Your task to perform on an android device: Add usb-a to usb-b to the cart on walmart.com Image 0: 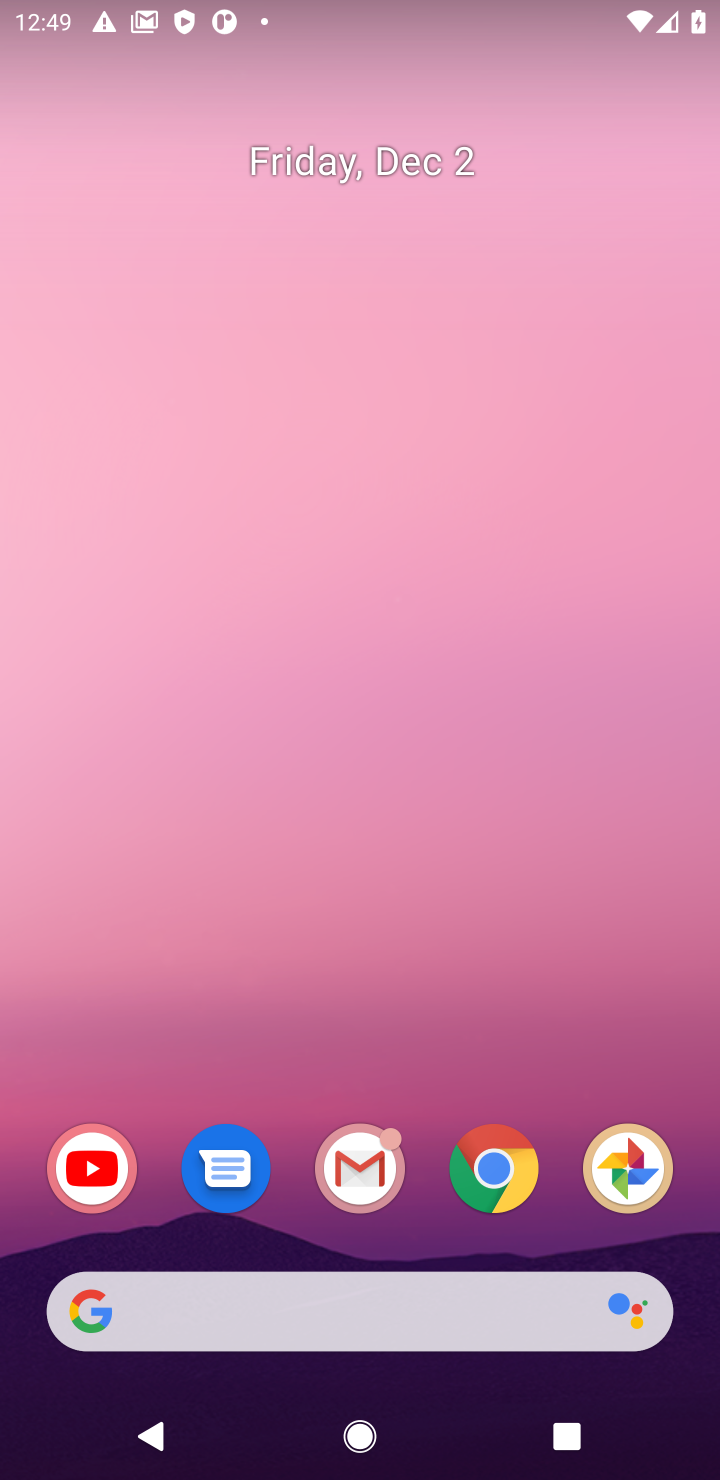
Step 0: click (518, 1172)
Your task to perform on an android device: Add usb-a to usb-b to the cart on walmart.com Image 1: 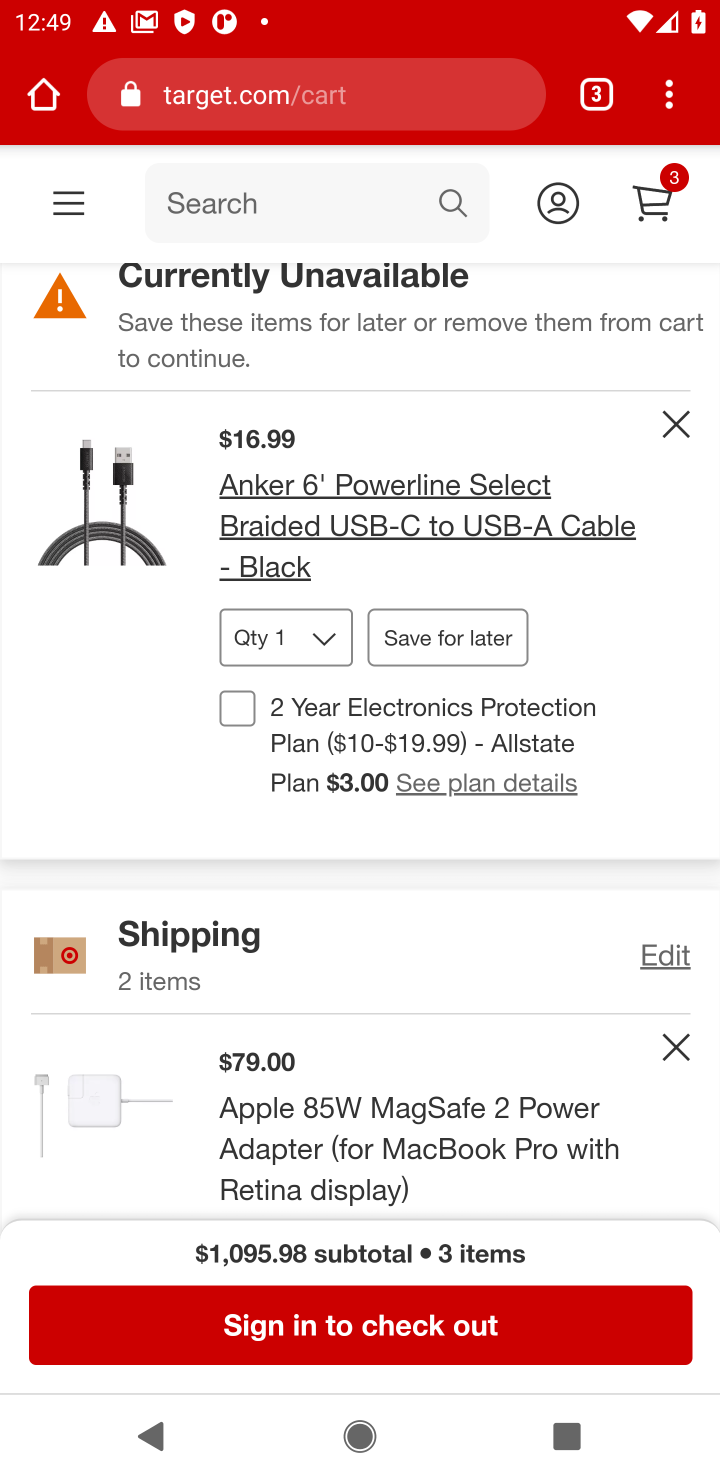
Step 1: click (219, 92)
Your task to perform on an android device: Add usb-a to usb-b to the cart on walmart.com Image 2: 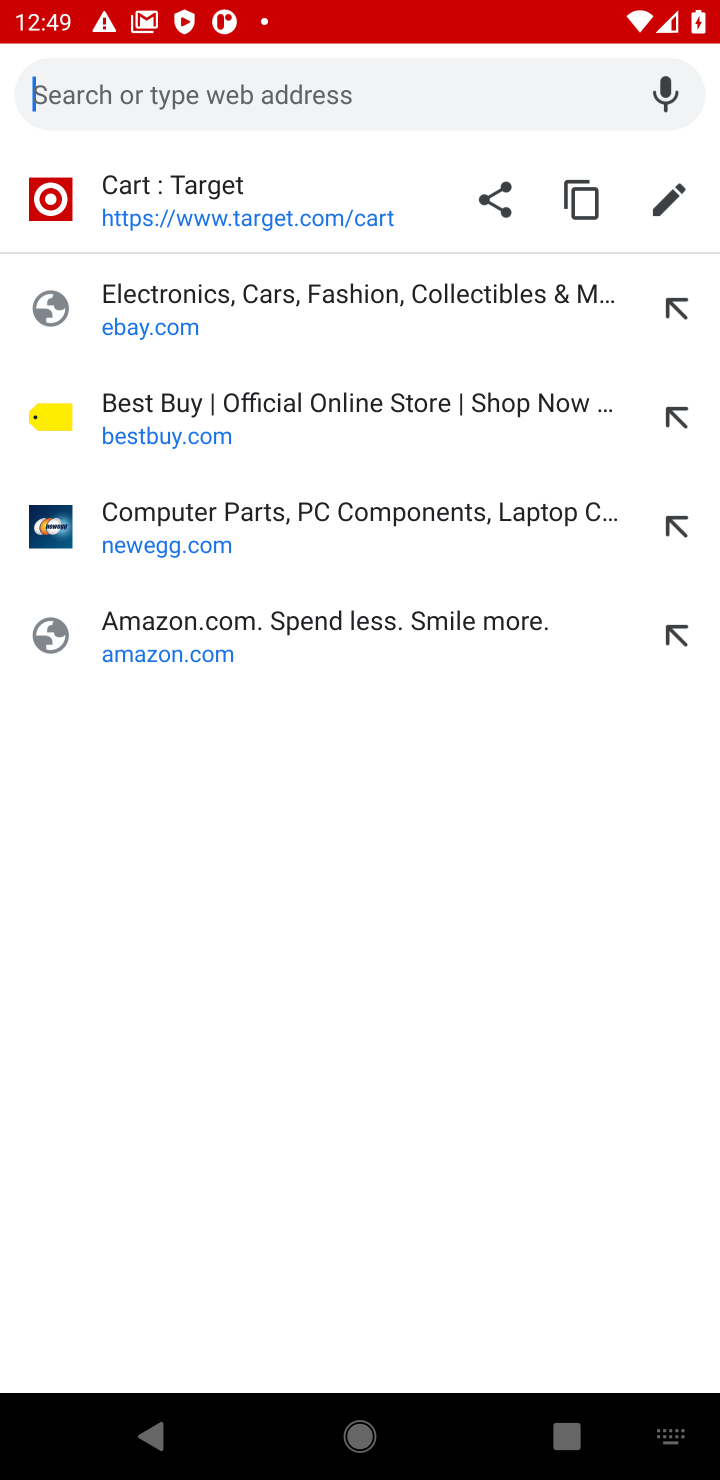
Step 2: type "walmart.com"
Your task to perform on an android device: Add usb-a to usb-b to the cart on walmart.com Image 3: 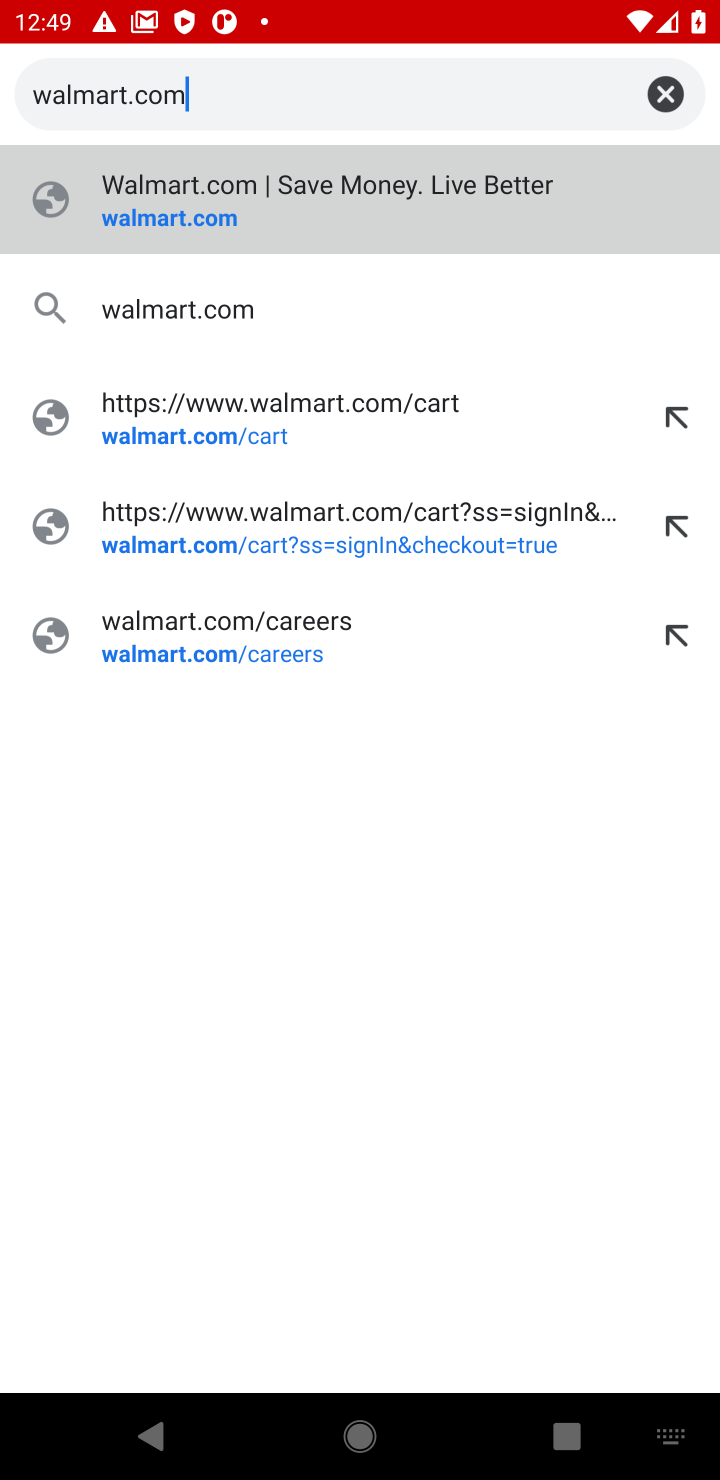
Step 3: click (164, 207)
Your task to perform on an android device: Add usb-a to usb-b to the cart on walmart.com Image 4: 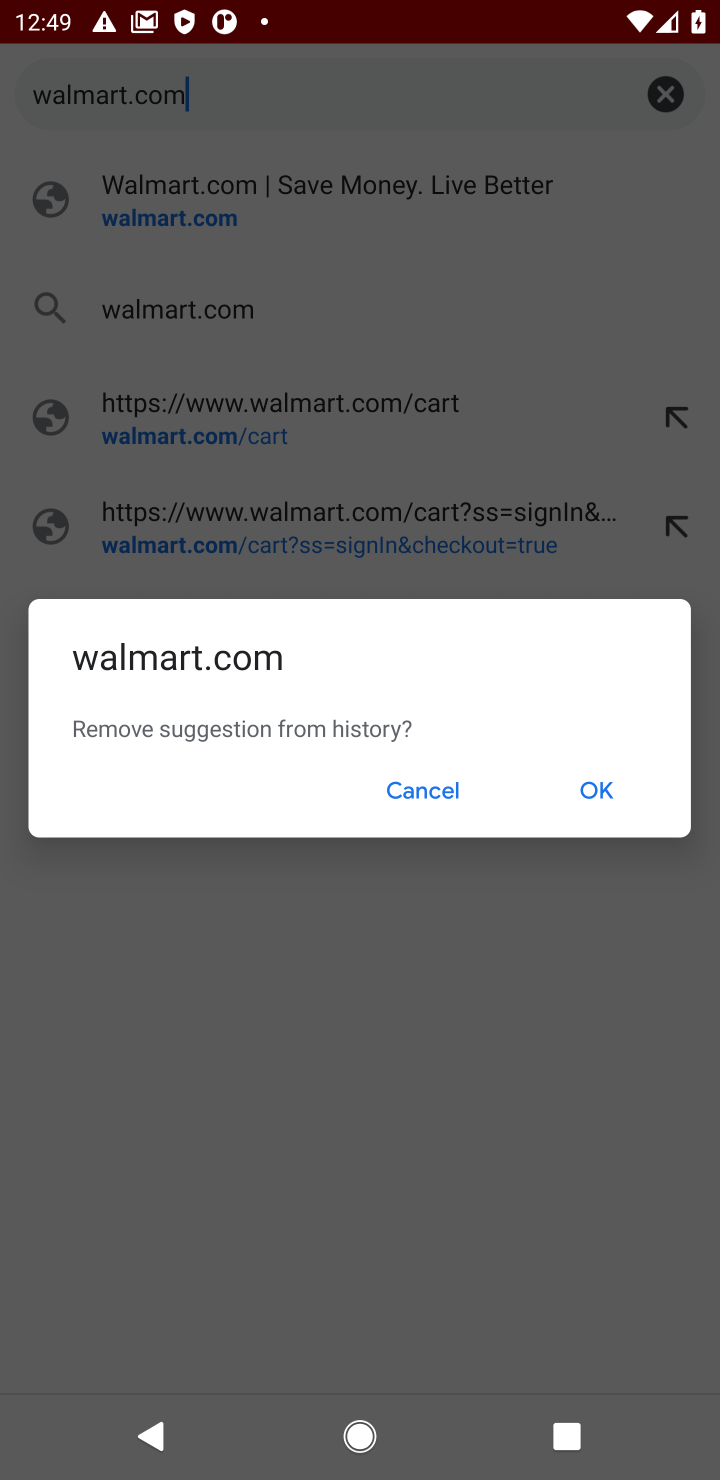
Step 4: click (407, 792)
Your task to perform on an android device: Add usb-a to usb-b to the cart on walmart.com Image 5: 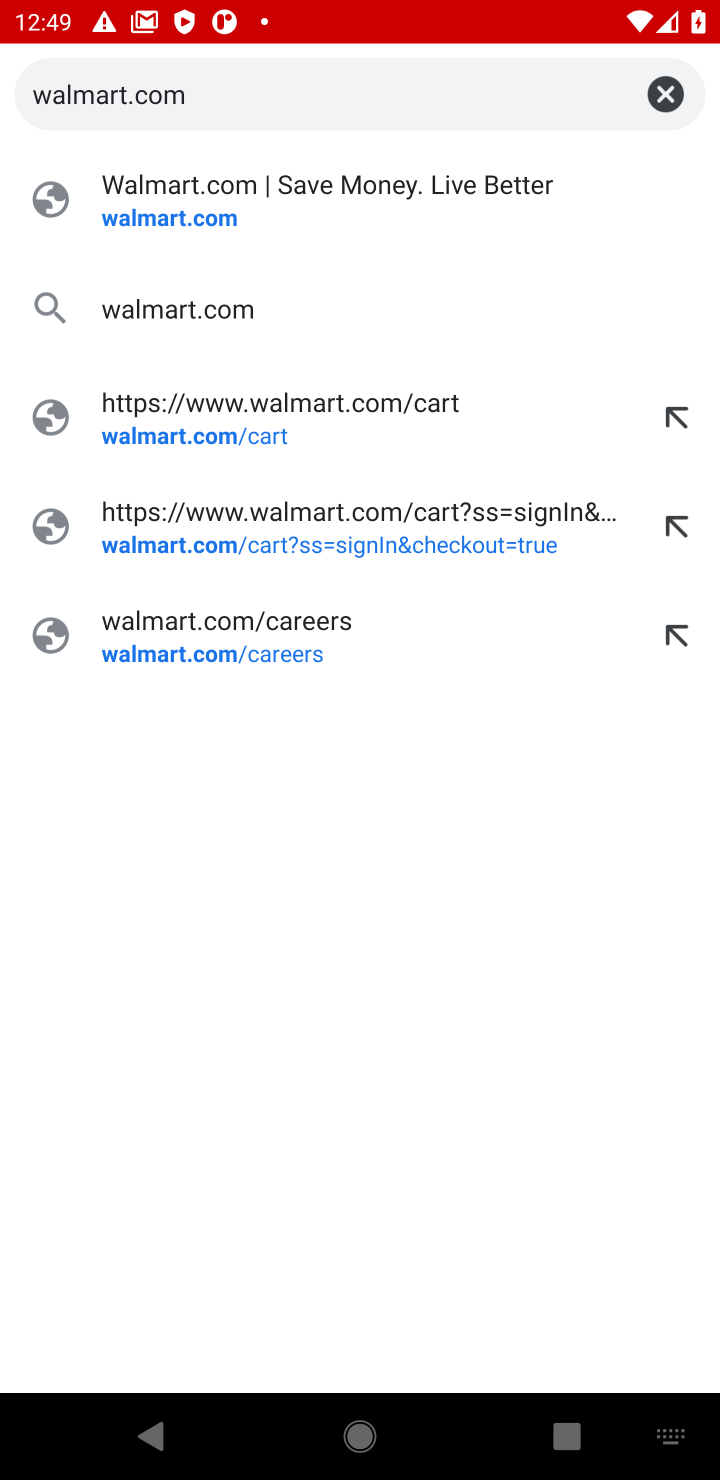
Step 5: click (167, 220)
Your task to perform on an android device: Add usb-a to usb-b to the cart on walmart.com Image 6: 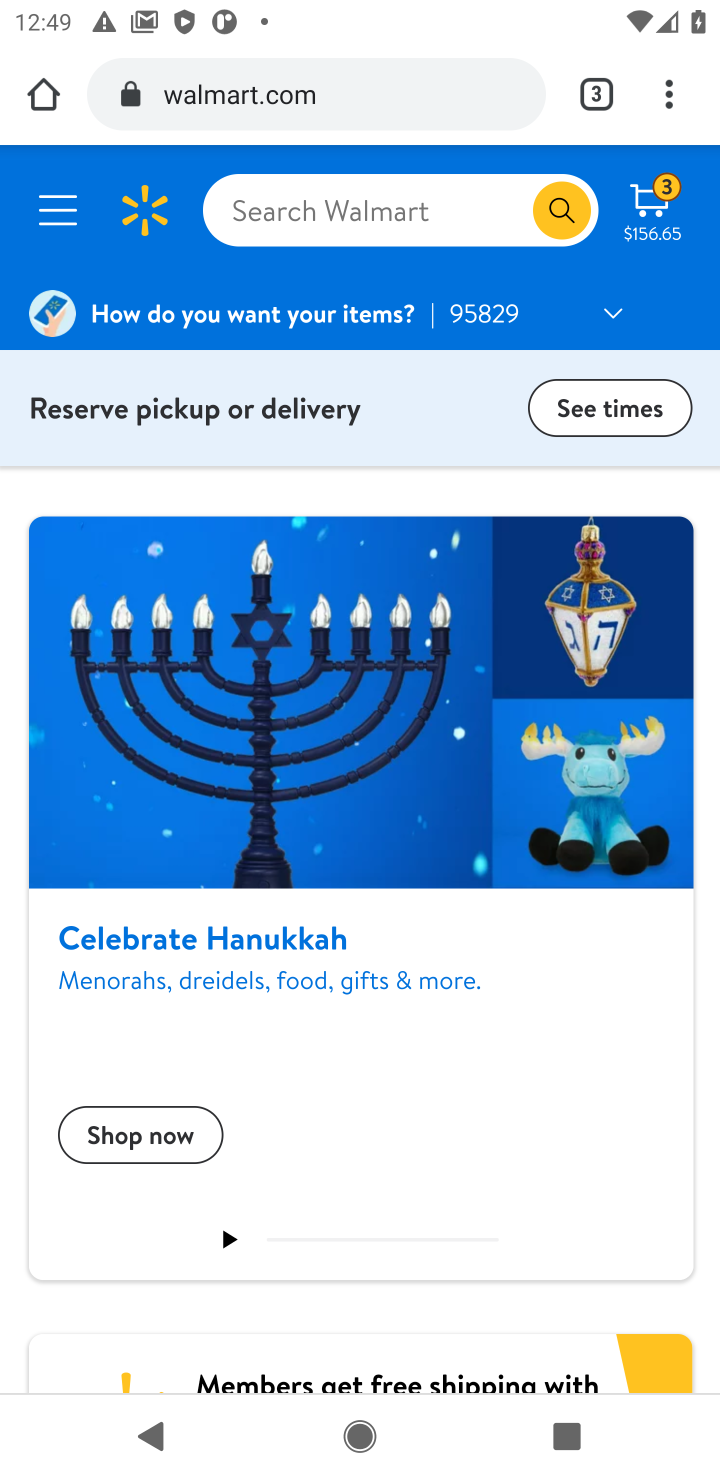
Step 6: click (328, 211)
Your task to perform on an android device: Add usb-a to usb-b to the cart on walmart.com Image 7: 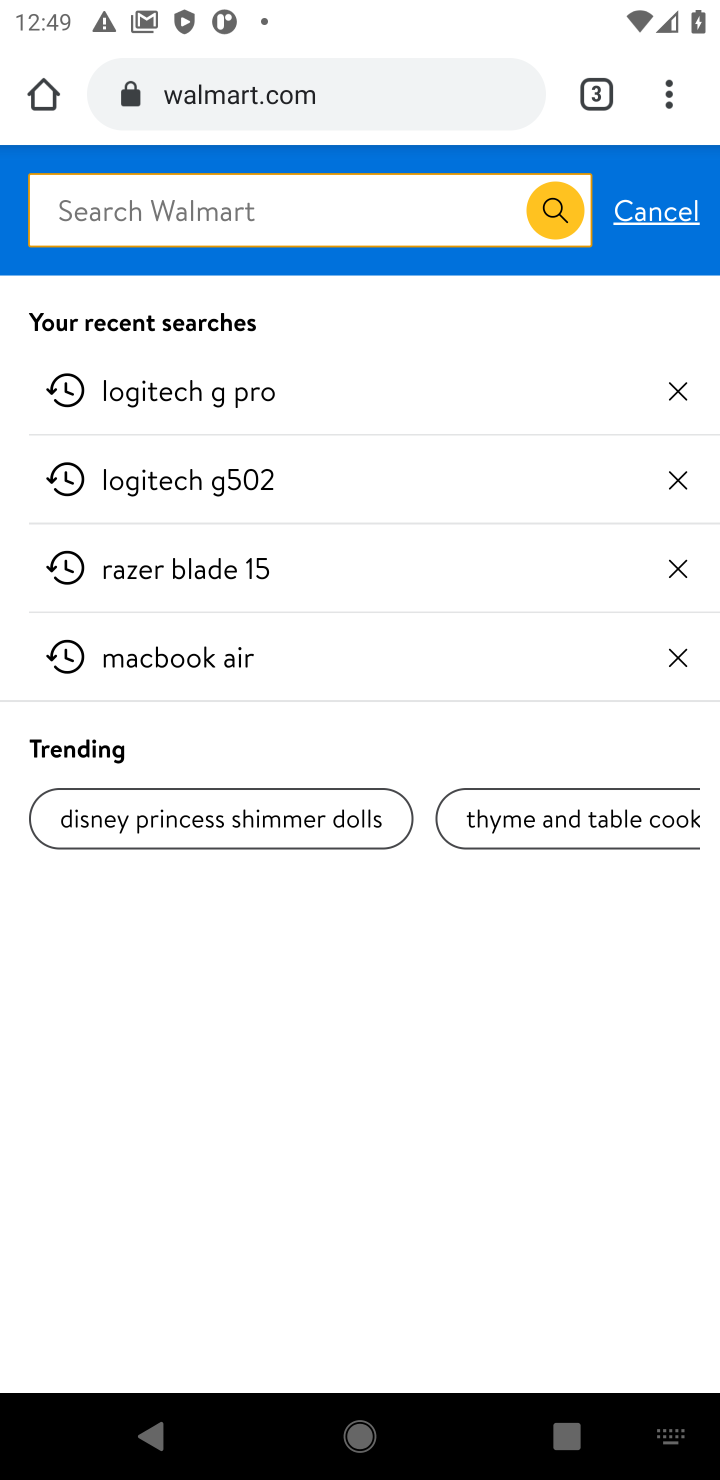
Step 7: type "usb-a to usb-b"
Your task to perform on an android device: Add usb-a to usb-b to the cart on walmart.com Image 8: 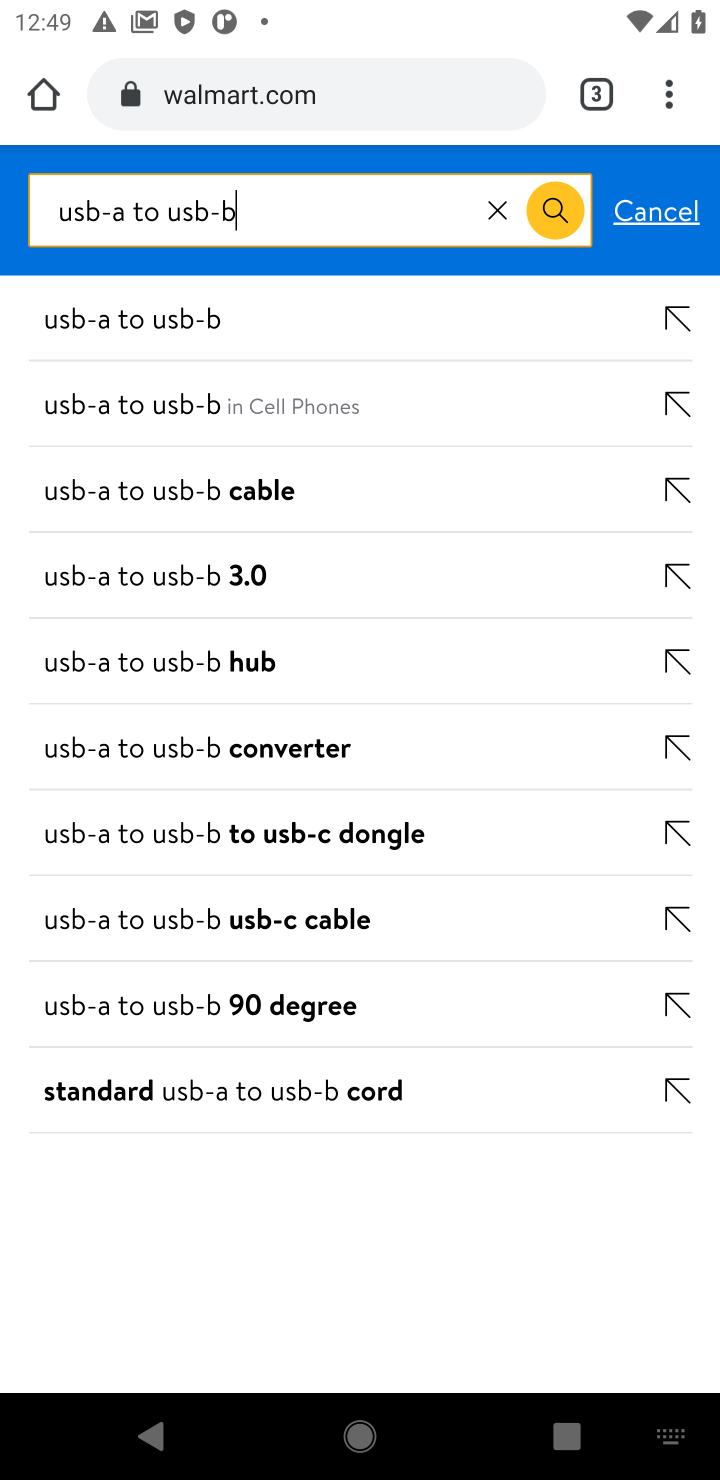
Step 8: click (171, 329)
Your task to perform on an android device: Add usb-a to usb-b to the cart on walmart.com Image 9: 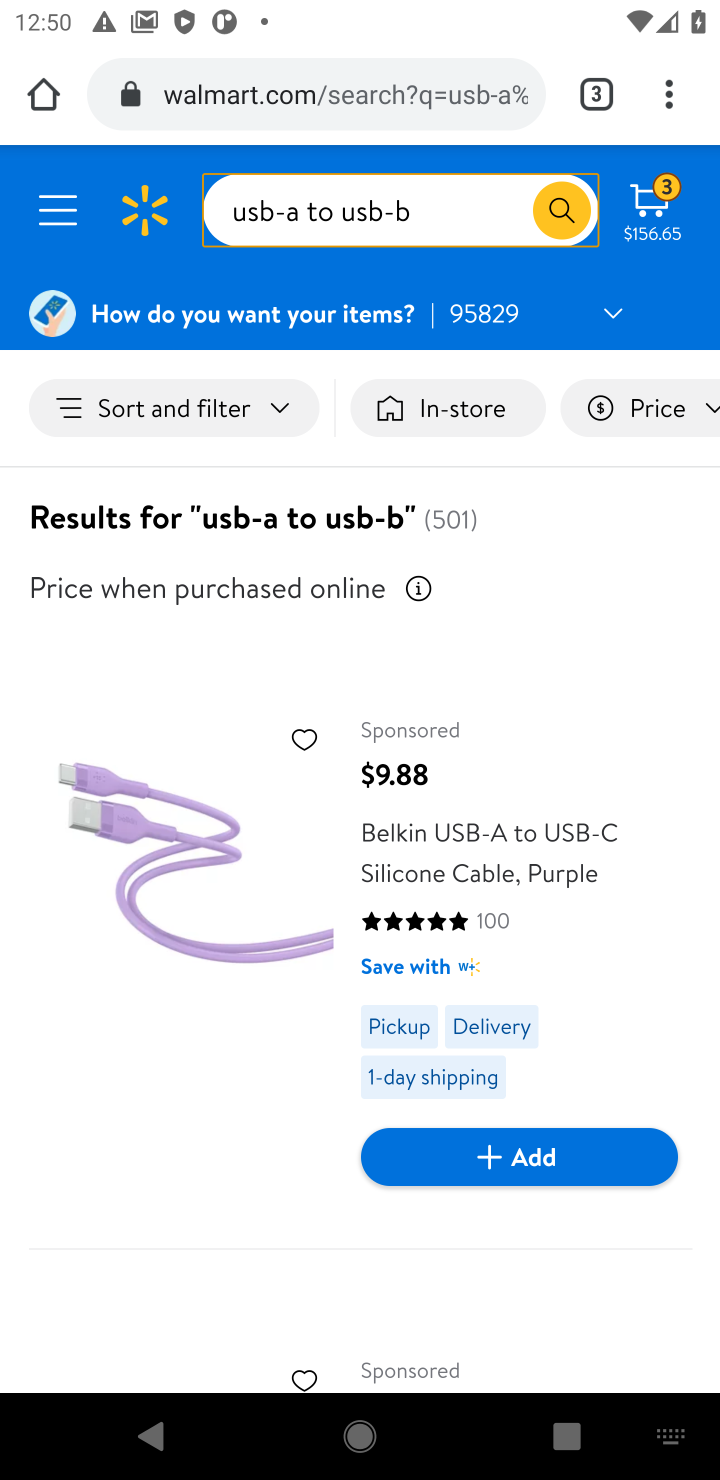
Step 9: drag from (271, 885) to (297, 400)
Your task to perform on an android device: Add usb-a to usb-b to the cart on walmart.com Image 10: 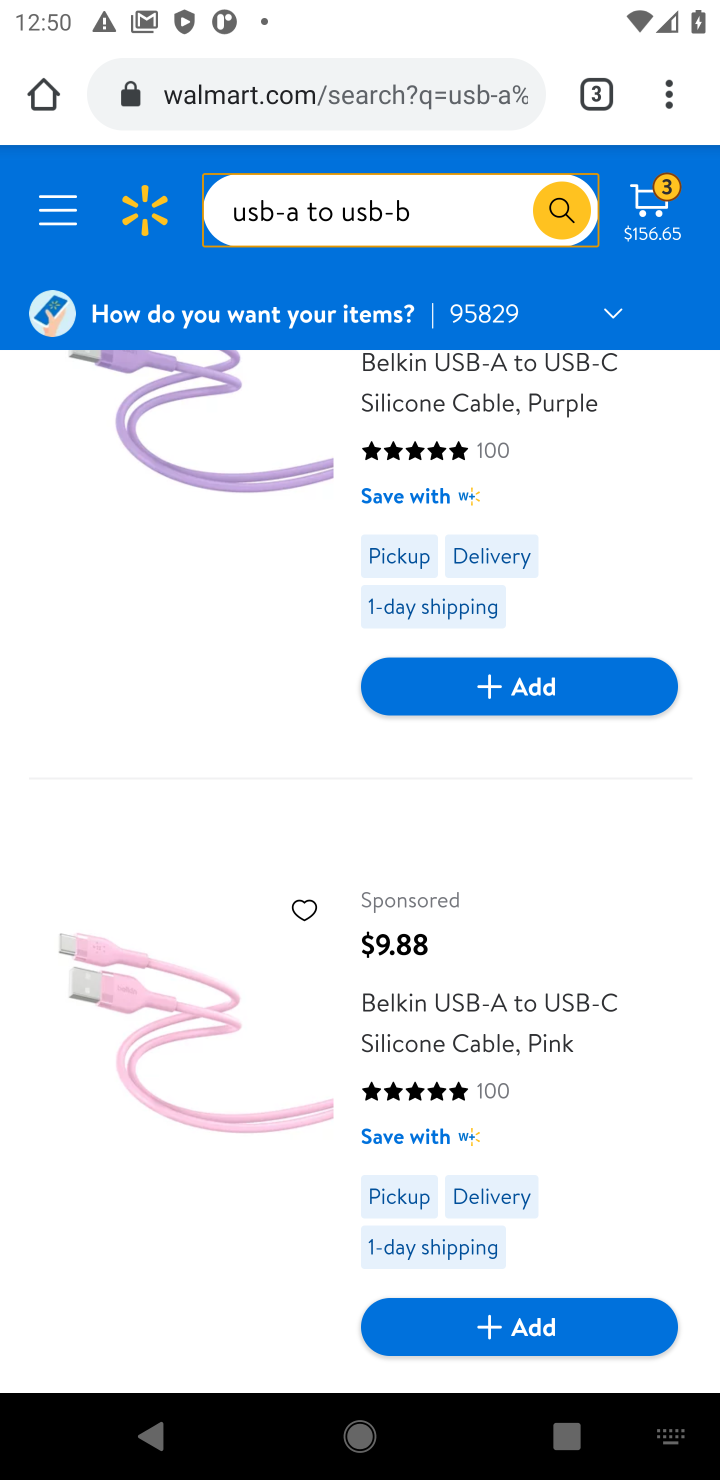
Step 10: drag from (223, 993) to (223, 486)
Your task to perform on an android device: Add usb-a to usb-b to the cart on walmart.com Image 11: 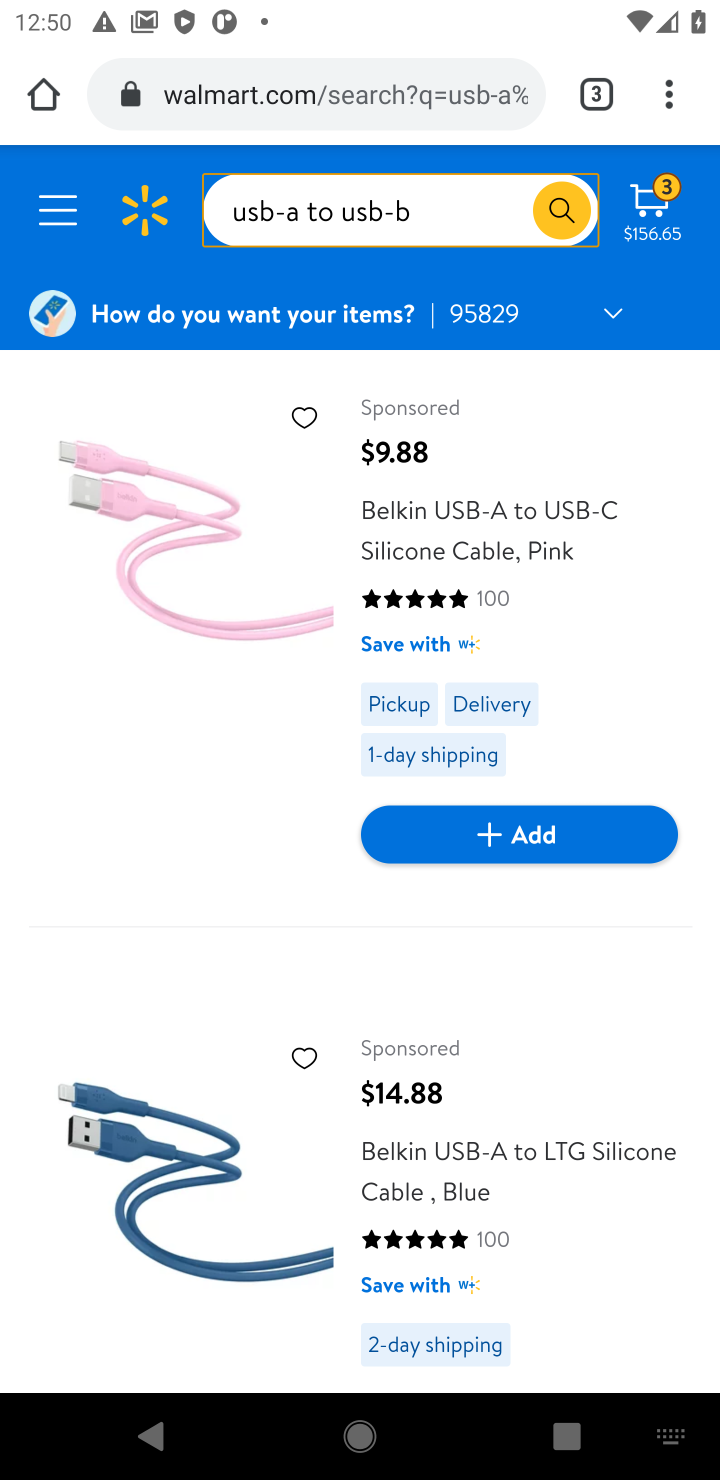
Step 11: drag from (211, 981) to (224, 453)
Your task to perform on an android device: Add usb-a to usb-b to the cart on walmart.com Image 12: 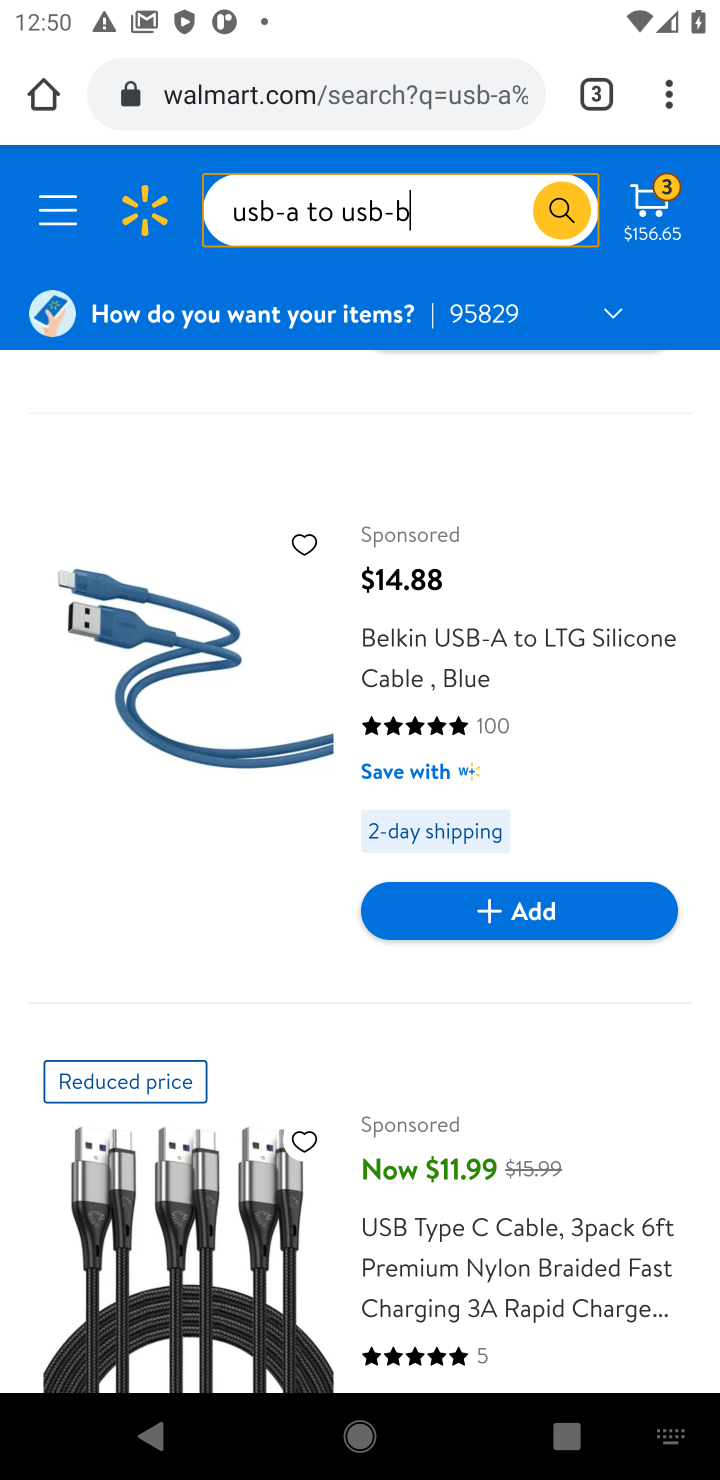
Step 12: drag from (228, 792) to (228, 299)
Your task to perform on an android device: Add usb-a to usb-b to the cart on walmart.com Image 13: 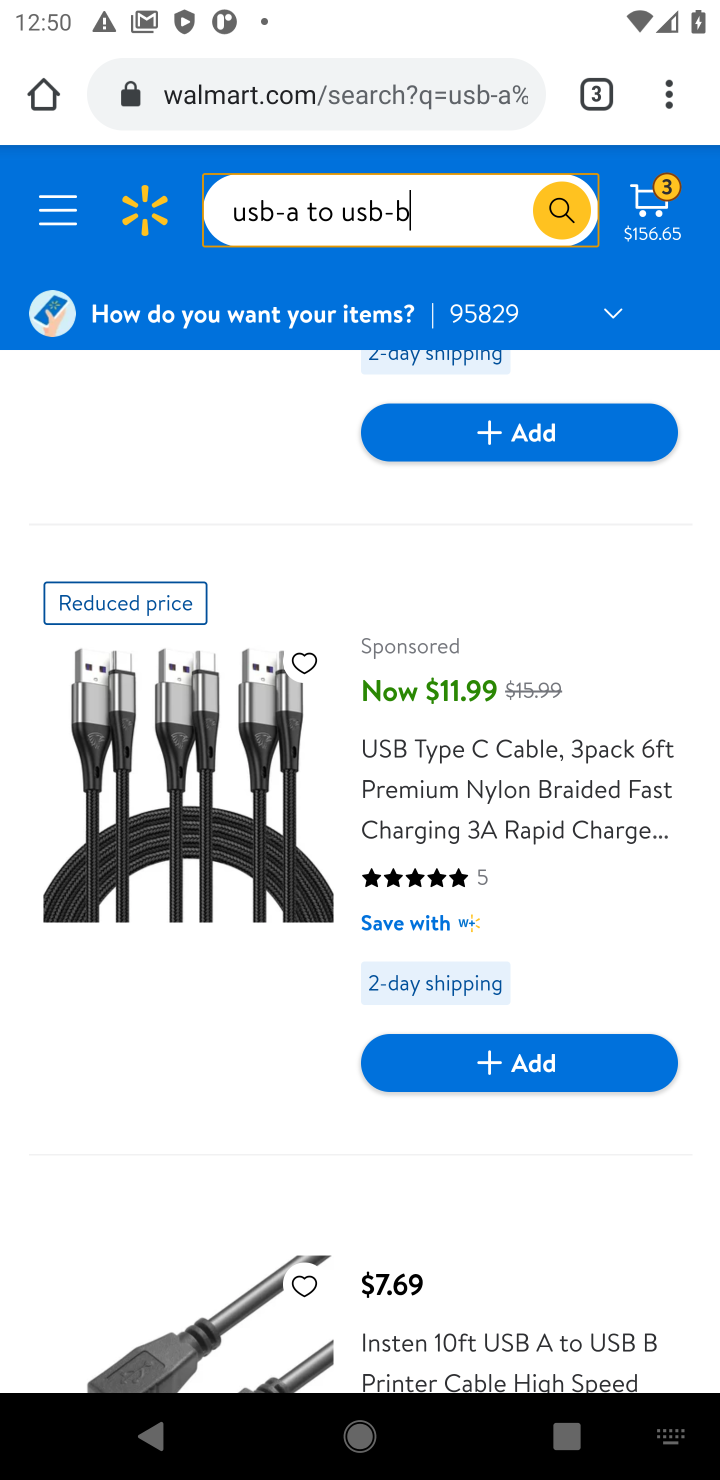
Step 13: drag from (242, 720) to (238, 307)
Your task to perform on an android device: Add usb-a to usb-b to the cart on walmart.com Image 14: 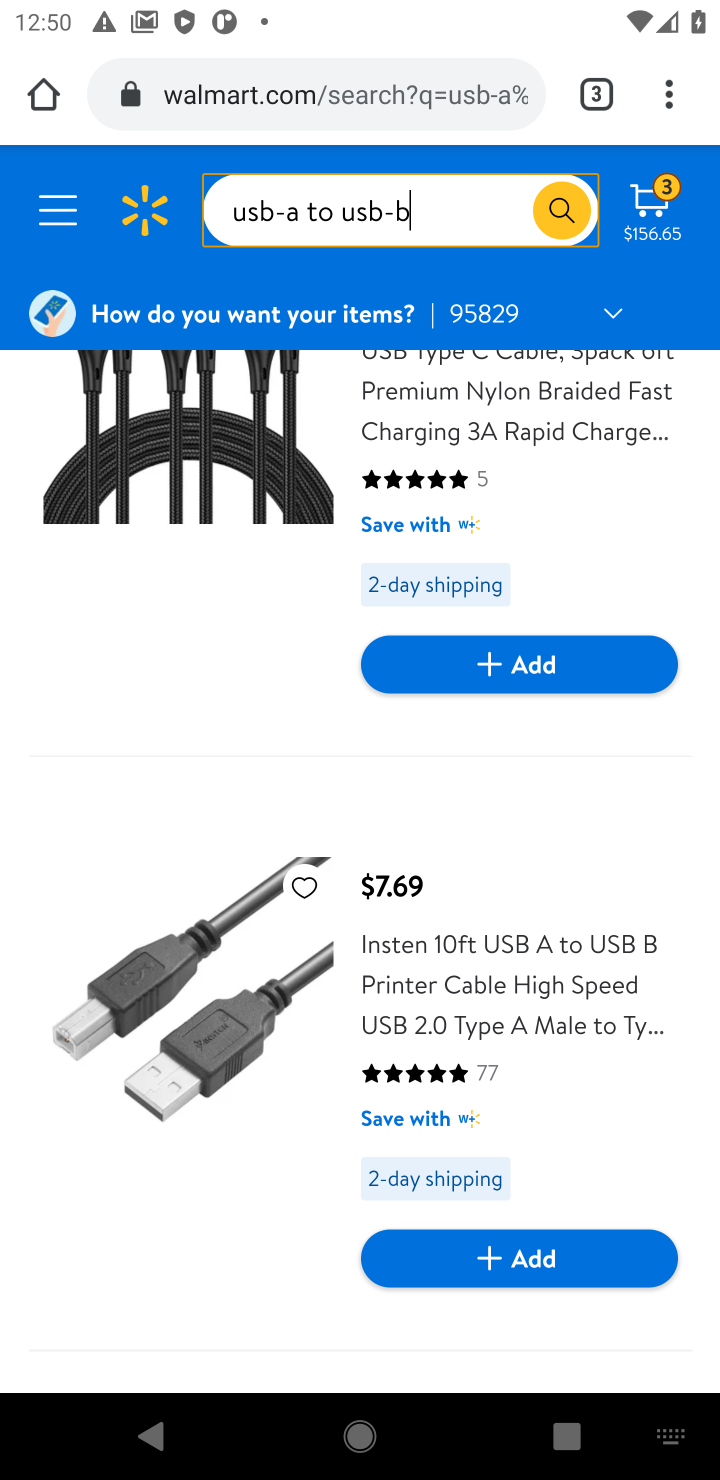
Step 14: click (512, 1256)
Your task to perform on an android device: Add usb-a to usb-b to the cart on walmart.com Image 15: 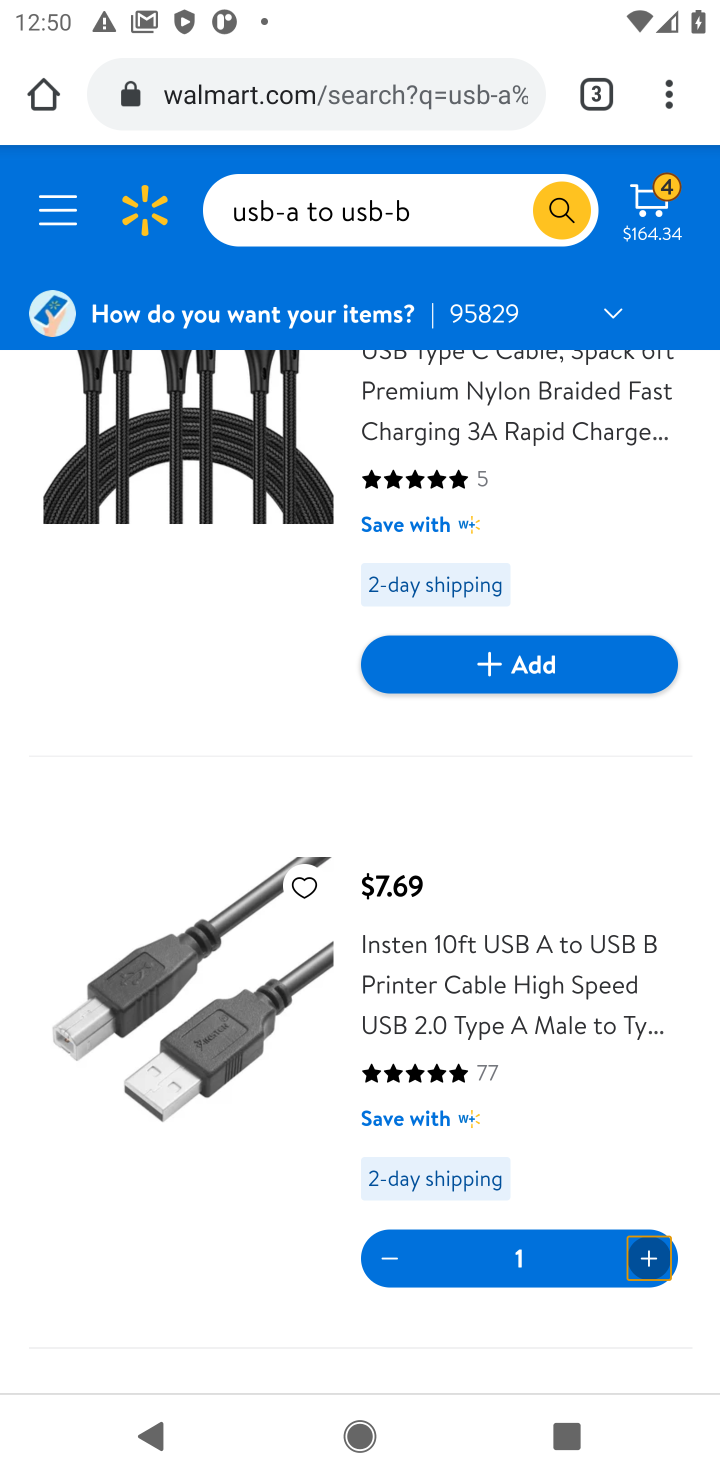
Step 15: task complete